Your task to perform on an android device: turn on javascript in the chrome app Image 0: 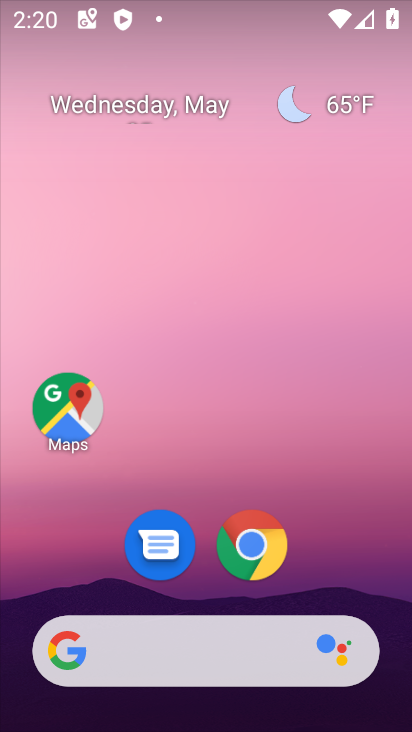
Step 0: click (269, 568)
Your task to perform on an android device: turn on javascript in the chrome app Image 1: 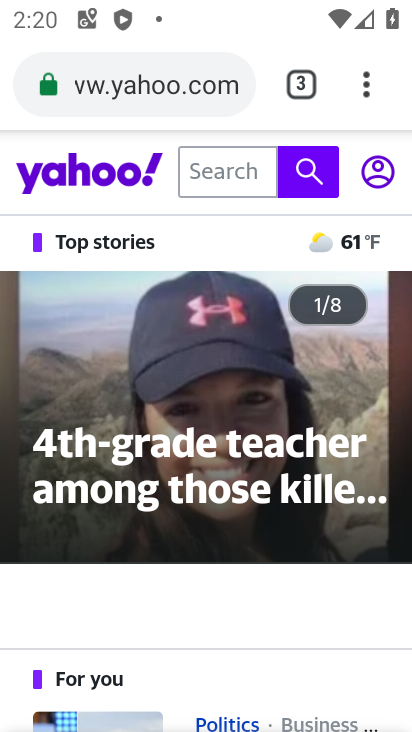
Step 1: click (371, 91)
Your task to perform on an android device: turn on javascript in the chrome app Image 2: 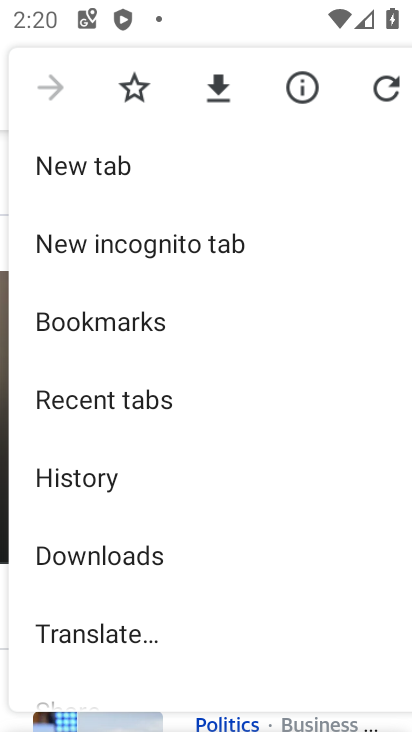
Step 2: drag from (257, 501) to (243, 47)
Your task to perform on an android device: turn on javascript in the chrome app Image 3: 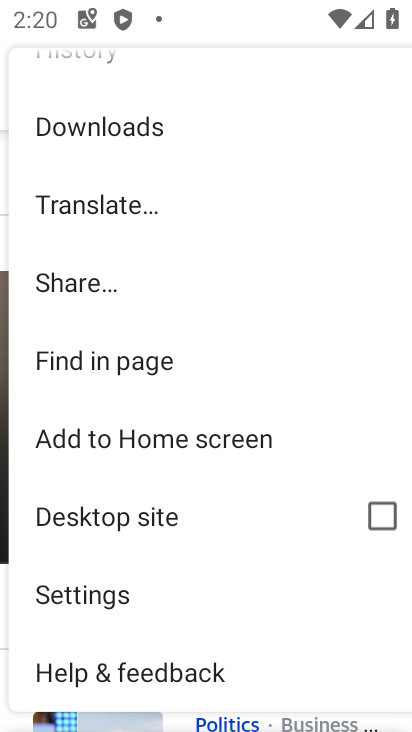
Step 3: click (139, 590)
Your task to perform on an android device: turn on javascript in the chrome app Image 4: 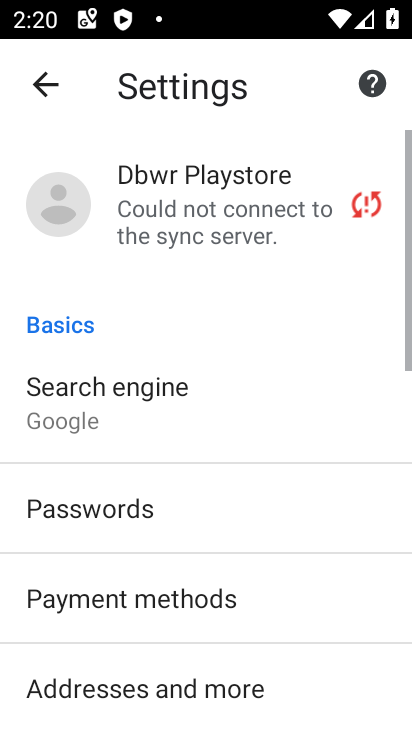
Step 4: drag from (247, 539) to (186, 125)
Your task to perform on an android device: turn on javascript in the chrome app Image 5: 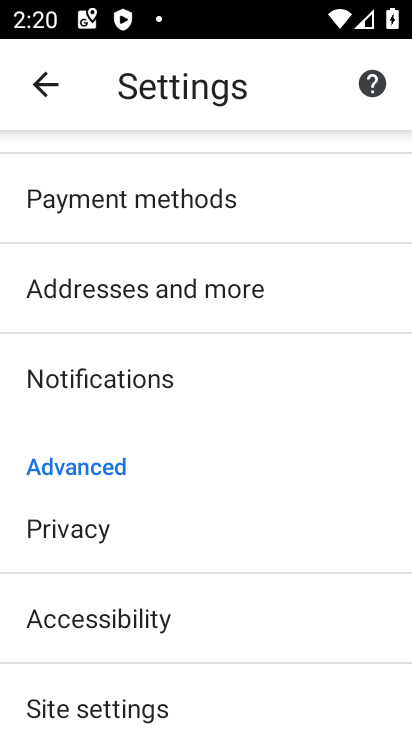
Step 5: click (152, 691)
Your task to perform on an android device: turn on javascript in the chrome app Image 6: 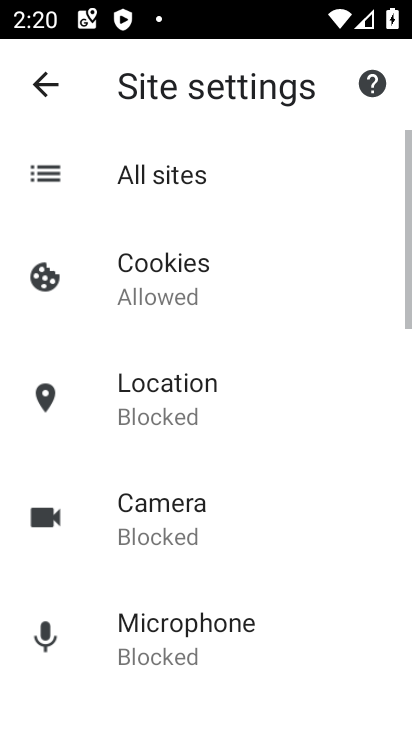
Step 6: drag from (234, 575) to (223, 227)
Your task to perform on an android device: turn on javascript in the chrome app Image 7: 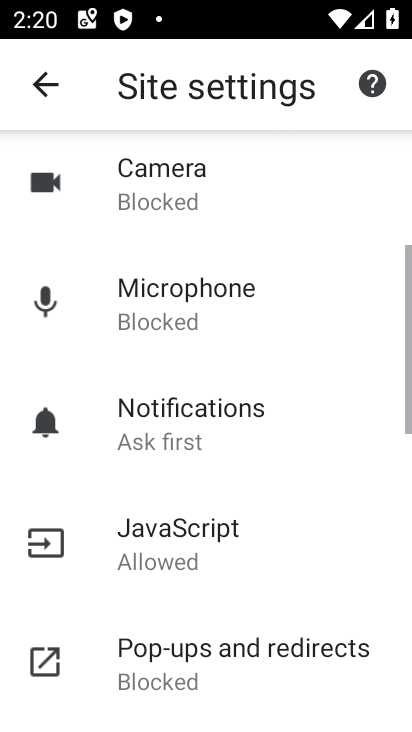
Step 7: click (200, 543)
Your task to perform on an android device: turn on javascript in the chrome app Image 8: 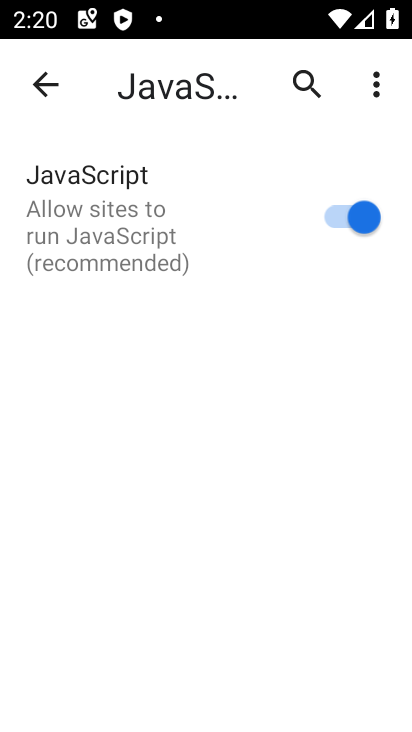
Step 8: task complete